Your task to perform on an android device: find snoozed emails in the gmail app Image 0: 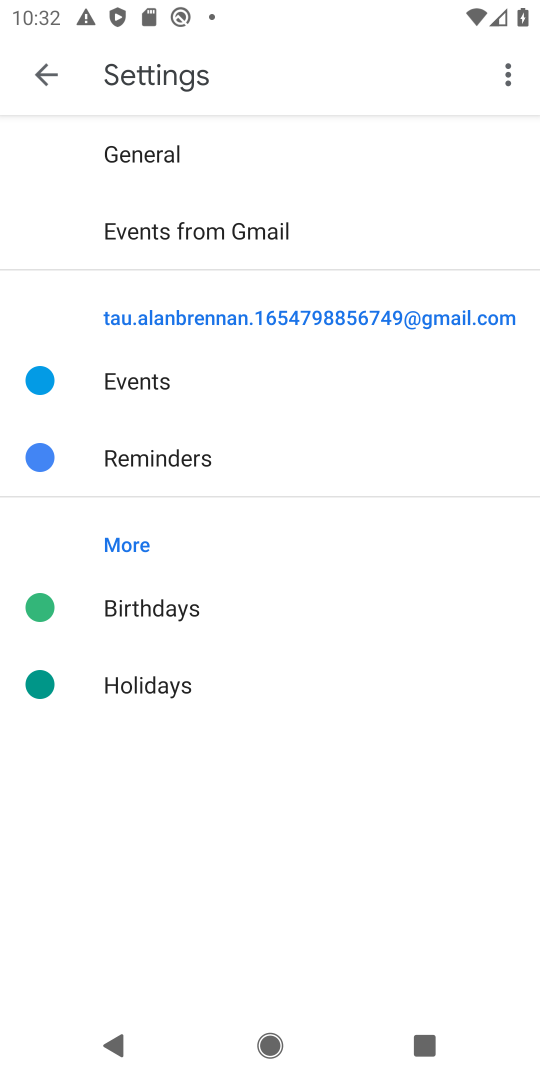
Step 0: press home button
Your task to perform on an android device: find snoozed emails in the gmail app Image 1: 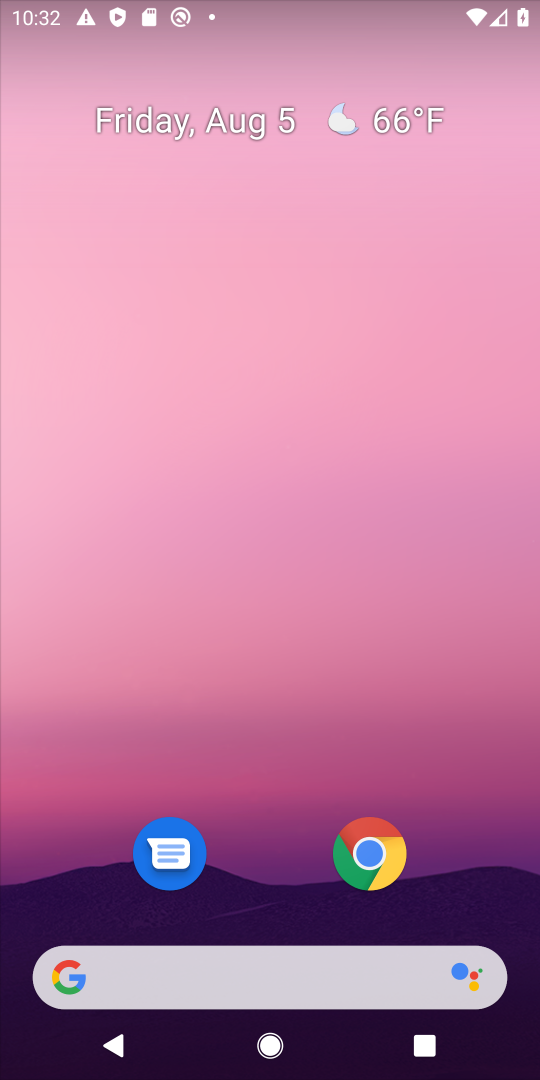
Step 1: drag from (268, 864) to (256, 461)
Your task to perform on an android device: find snoozed emails in the gmail app Image 2: 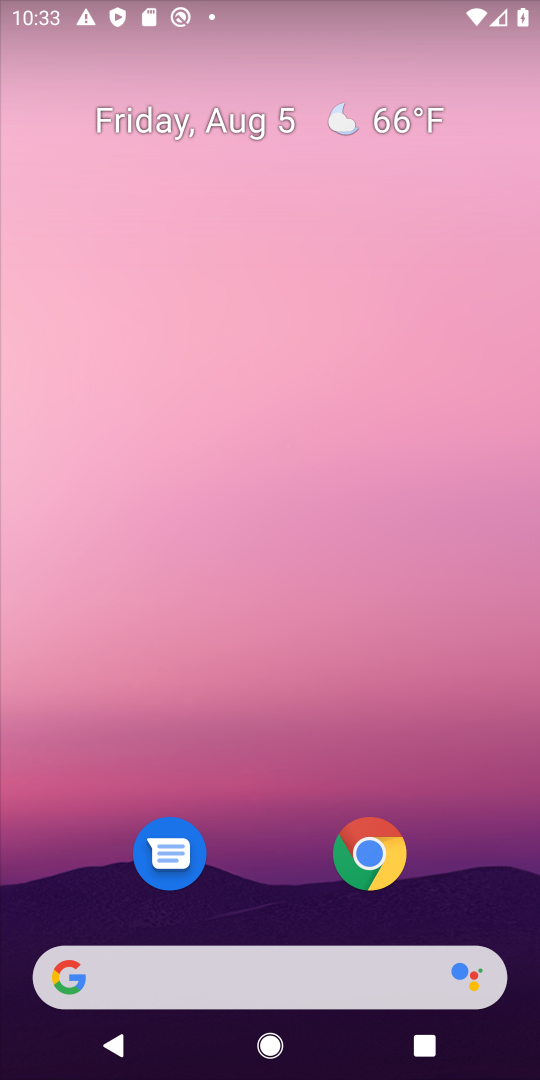
Step 2: drag from (262, 856) to (201, 507)
Your task to perform on an android device: find snoozed emails in the gmail app Image 3: 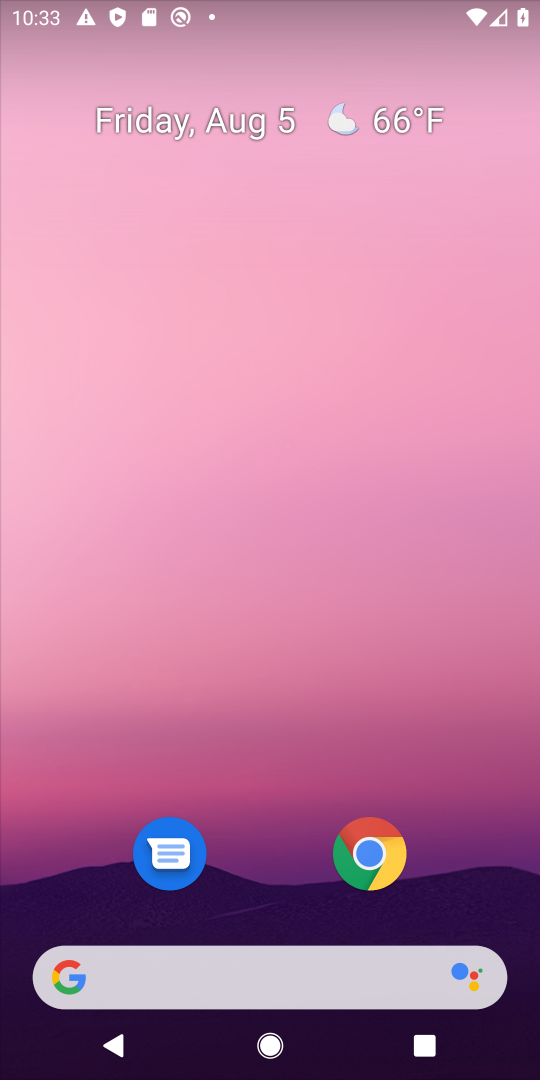
Step 3: drag from (280, 894) to (142, 235)
Your task to perform on an android device: find snoozed emails in the gmail app Image 4: 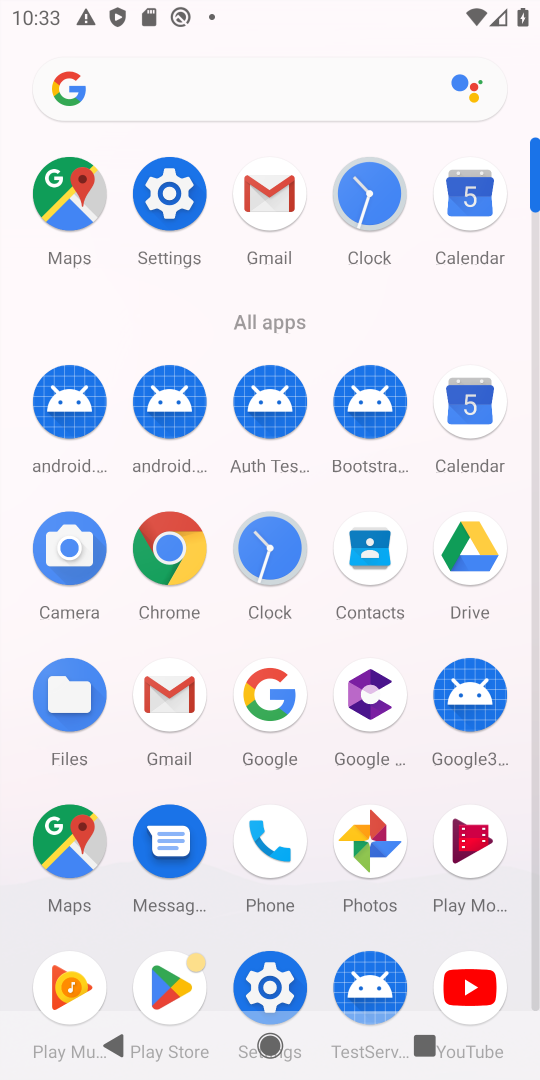
Step 4: click (263, 184)
Your task to perform on an android device: find snoozed emails in the gmail app Image 5: 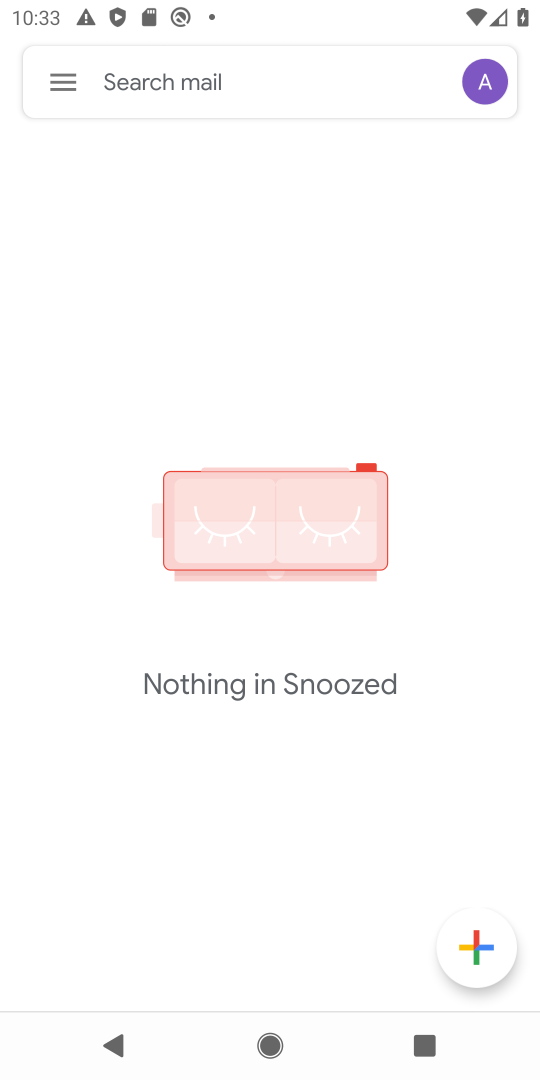
Step 5: click (58, 100)
Your task to perform on an android device: find snoozed emails in the gmail app Image 6: 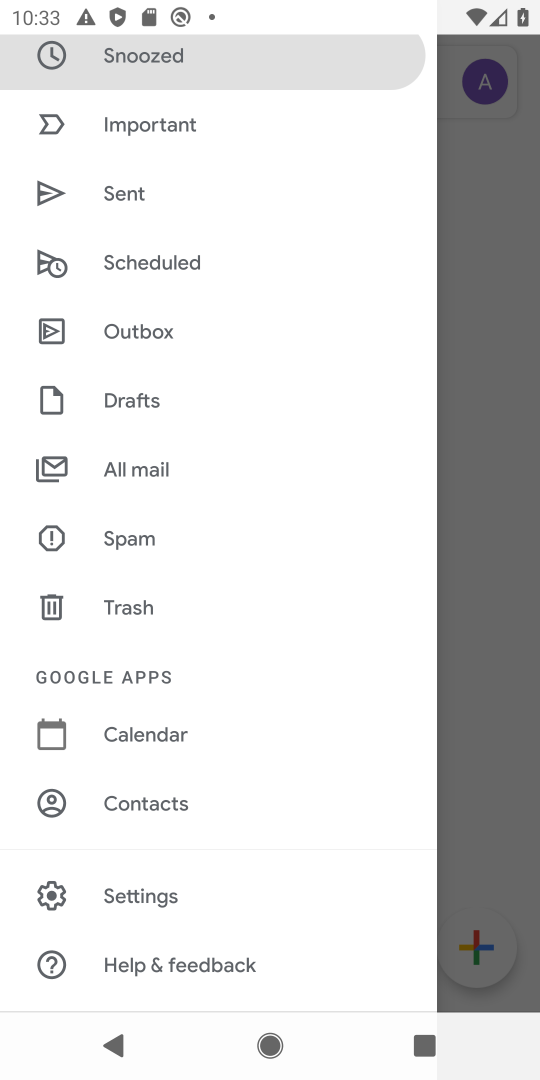
Step 6: click (217, 70)
Your task to perform on an android device: find snoozed emails in the gmail app Image 7: 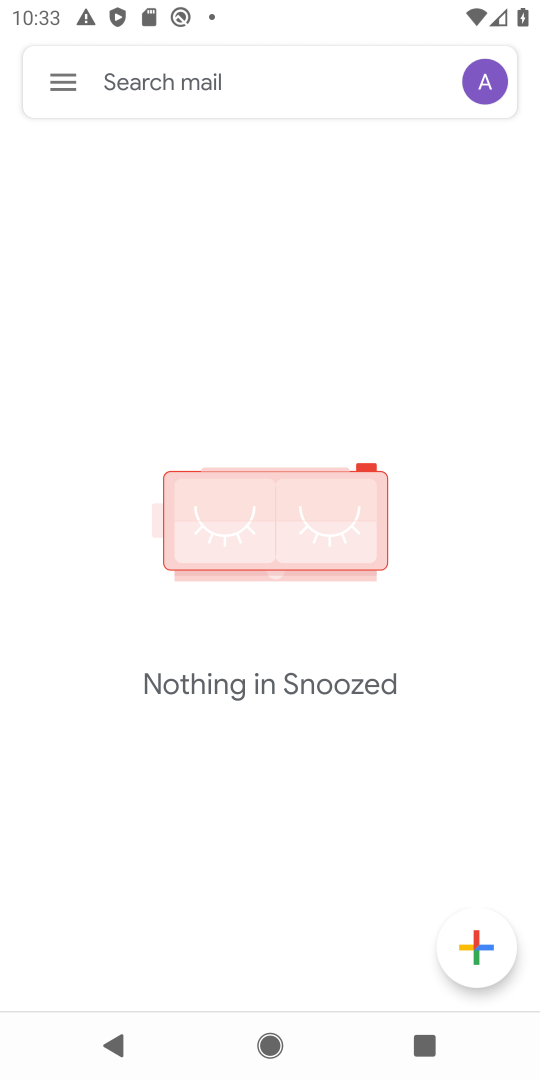
Step 7: task complete